Your task to perform on an android device: toggle improve location accuracy Image 0: 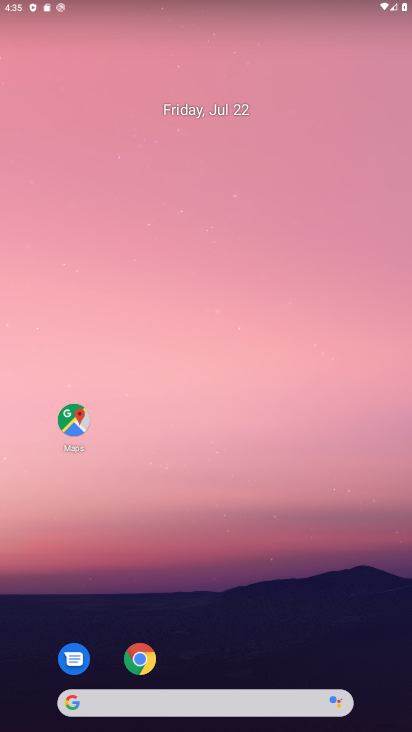
Step 0: drag from (294, 604) to (359, 219)
Your task to perform on an android device: toggle improve location accuracy Image 1: 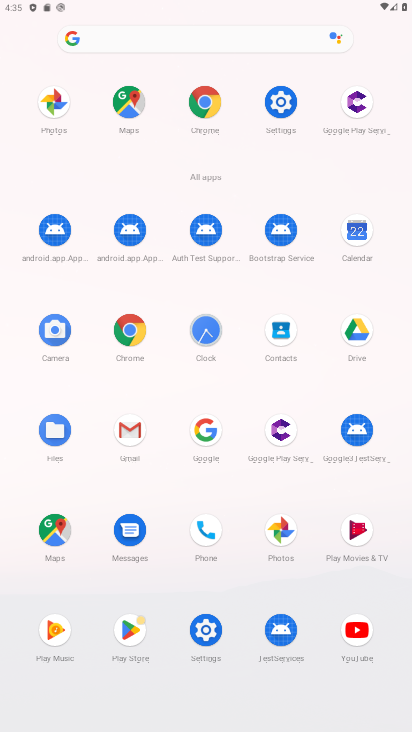
Step 1: click (290, 106)
Your task to perform on an android device: toggle improve location accuracy Image 2: 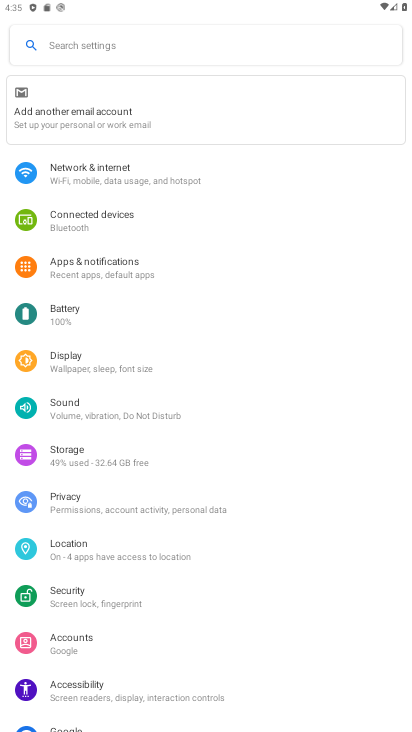
Step 2: click (230, 539)
Your task to perform on an android device: toggle improve location accuracy Image 3: 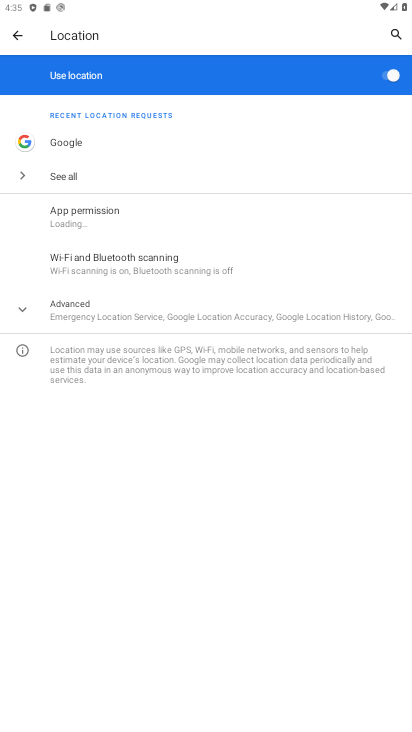
Step 3: click (162, 314)
Your task to perform on an android device: toggle improve location accuracy Image 4: 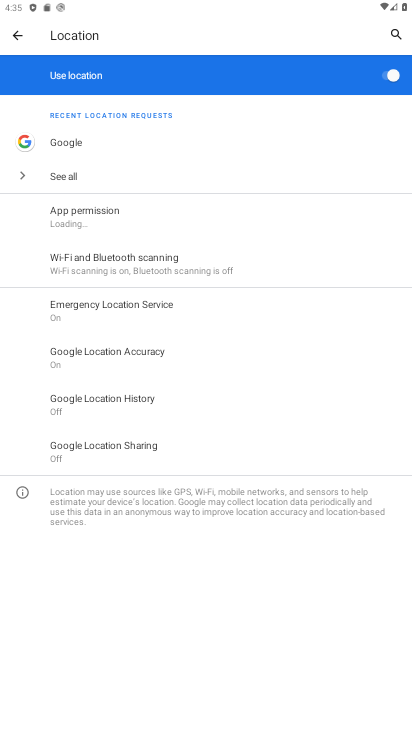
Step 4: click (153, 352)
Your task to perform on an android device: toggle improve location accuracy Image 5: 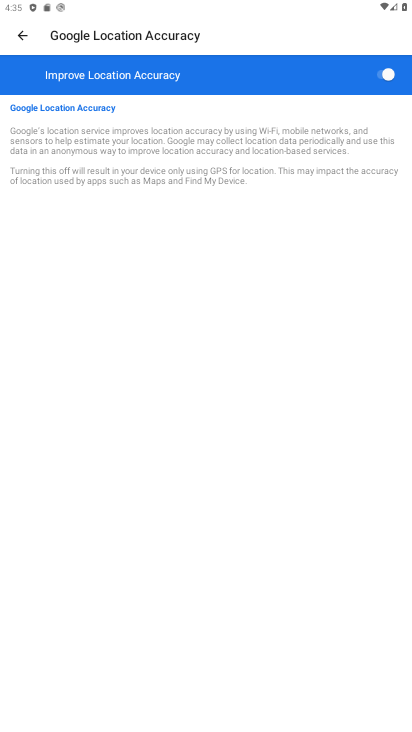
Step 5: click (380, 69)
Your task to perform on an android device: toggle improve location accuracy Image 6: 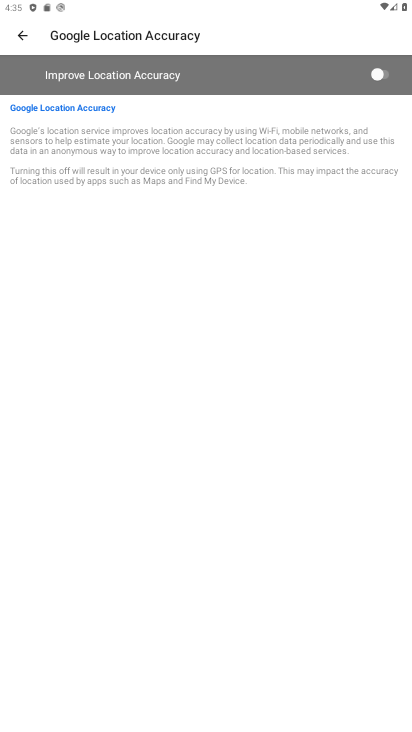
Step 6: task complete